Your task to perform on an android device: uninstall "Viber Messenger" Image 0: 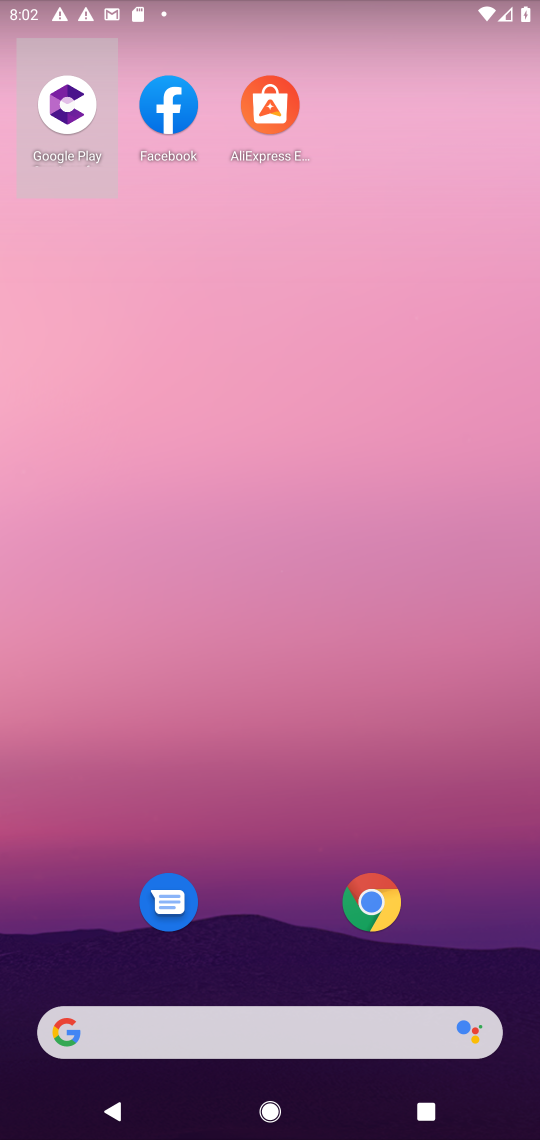
Step 0: drag from (284, 1018) to (314, 71)
Your task to perform on an android device: uninstall "Viber Messenger" Image 1: 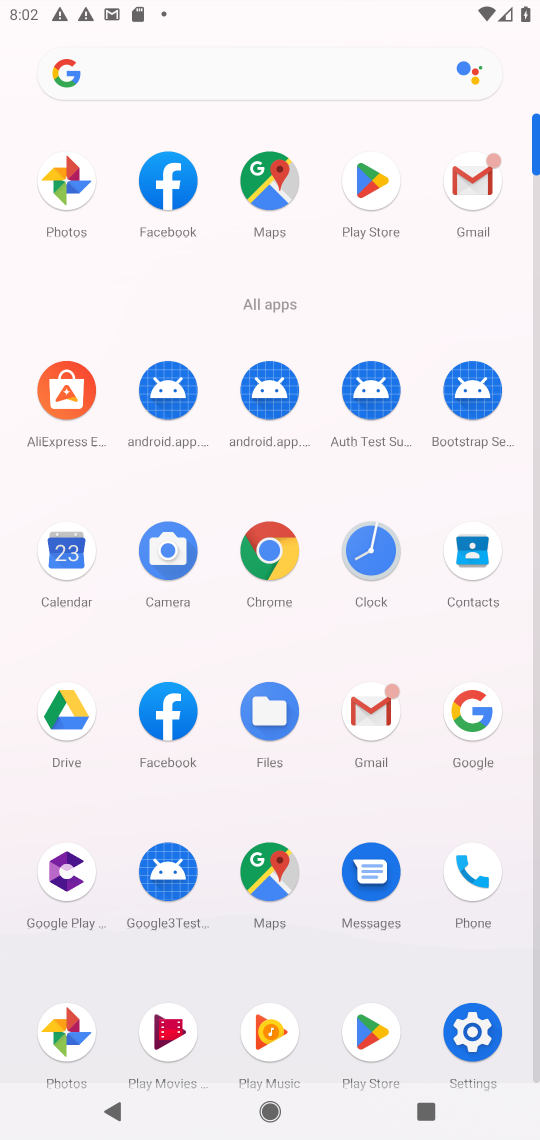
Step 1: click (358, 1039)
Your task to perform on an android device: uninstall "Viber Messenger" Image 2: 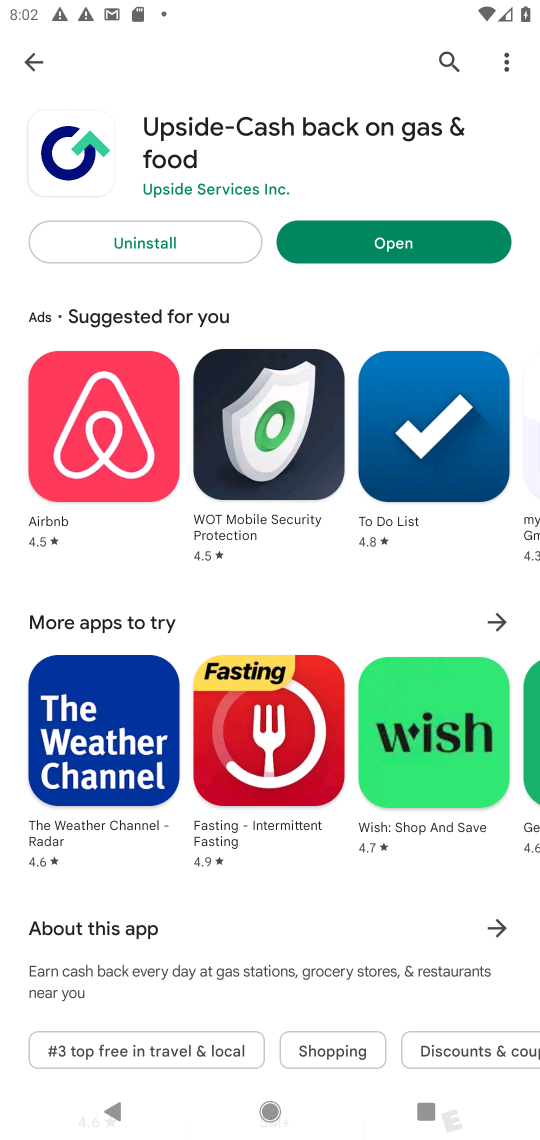
Step 2: click (437, 70)
Your task to perform on an android device: uninstall "Viber Messenger" Image 3: 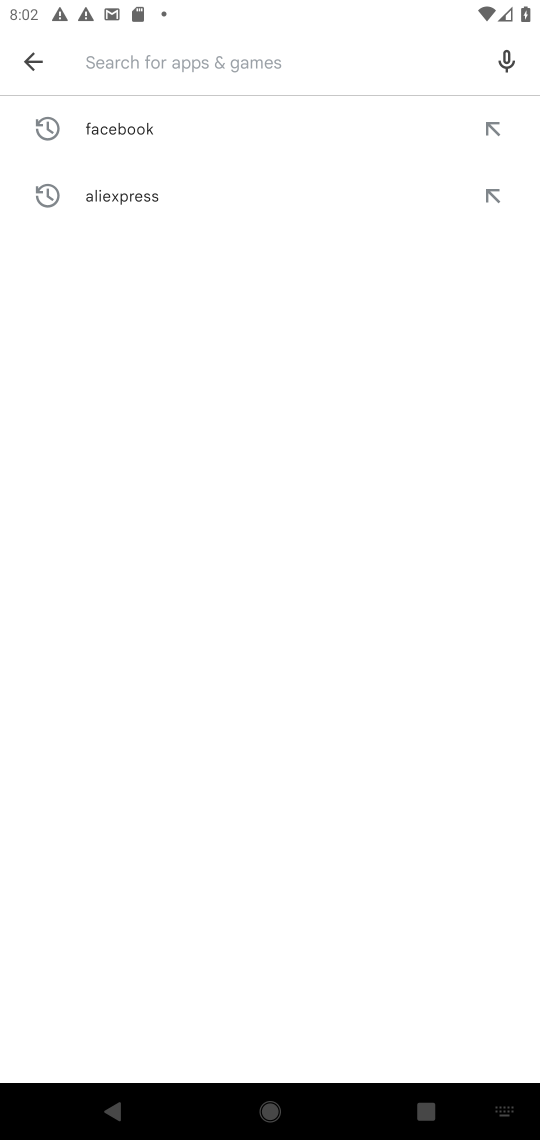
Step 3: type "viber messenger"
Your task to perform on an android device: uninstall "Viber Messenger" Image 4: 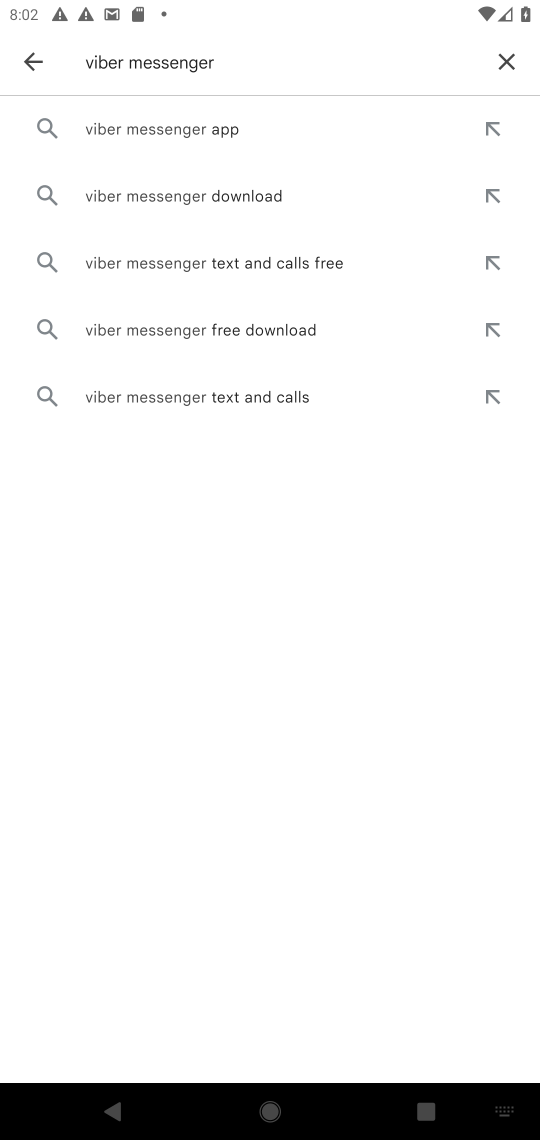
Step 4: click (172, 132)
Your task to perform on an android device: uninstall "Viber Messenger" Image 5: 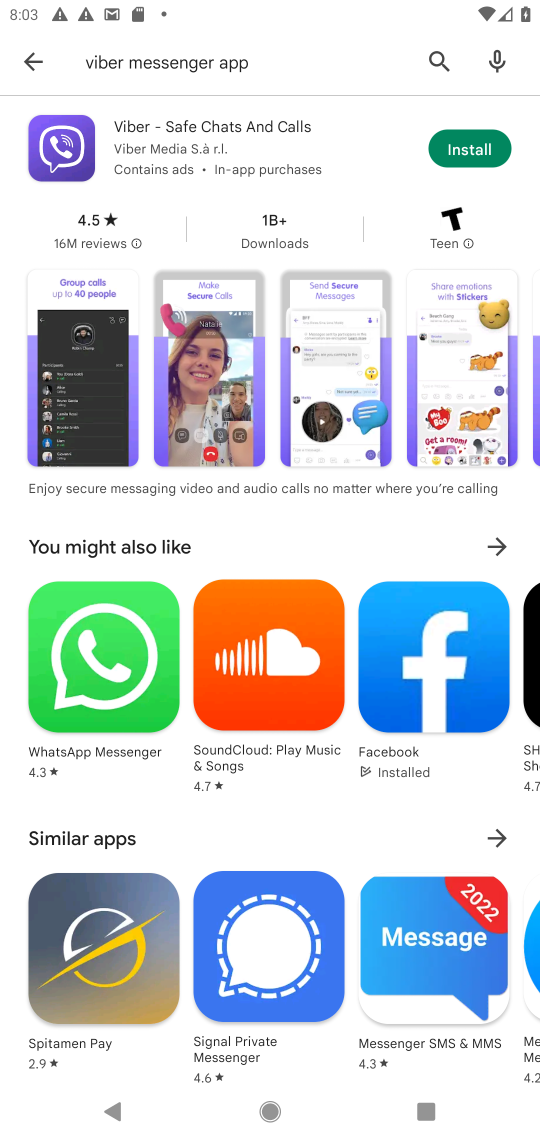
Step 5: task complete